Your task to perform on an android device: Go to Amazon Image 0: 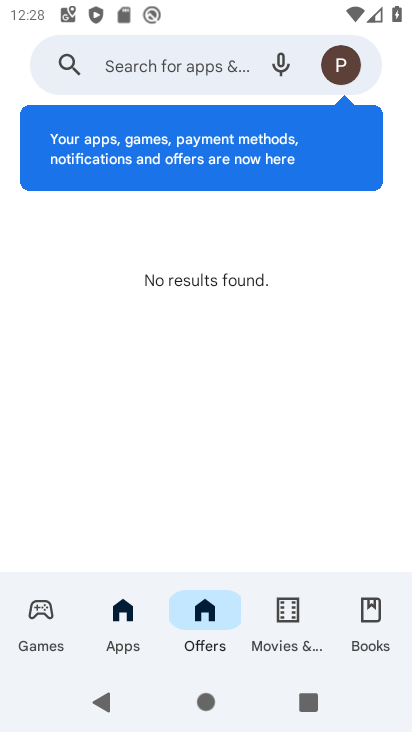
Step 0: press home button
Your task to perform on an android device: Go to Amazon Image 1: 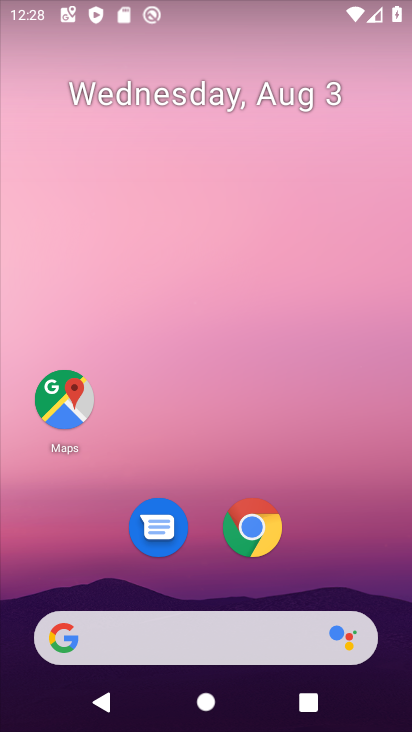
Step 1: click (244, 523)
Your task to perform on an android device: Go to Amazon Image 2: 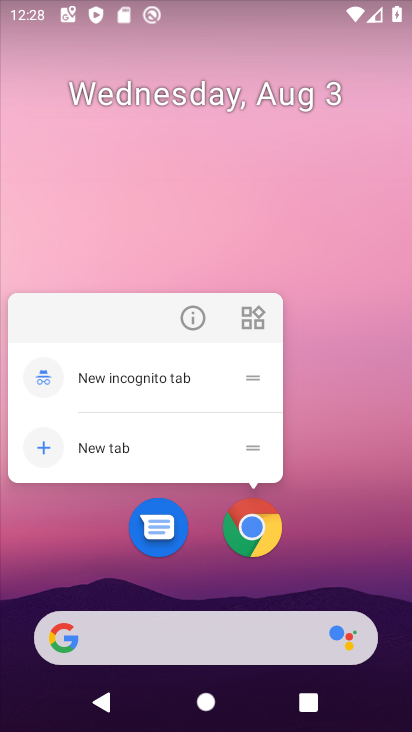
Step 2: click (269, 548)
Your task to perform on an android device: Go to Amazon Image 3: 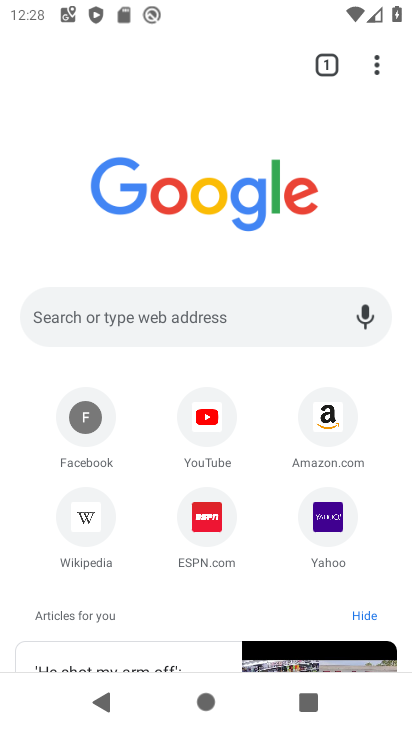
Step 3: click (316, 437)
Your task to perform on an android device: Go to Amazon Image 4: 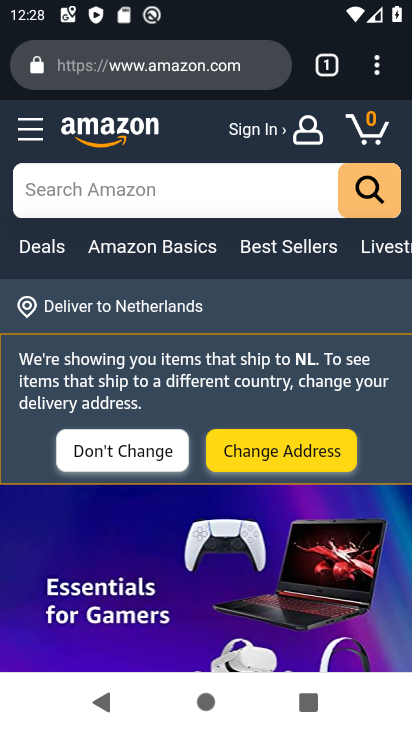
Step 4: task complete